Your task to perform on an android device: Go to notification settings Image 0: 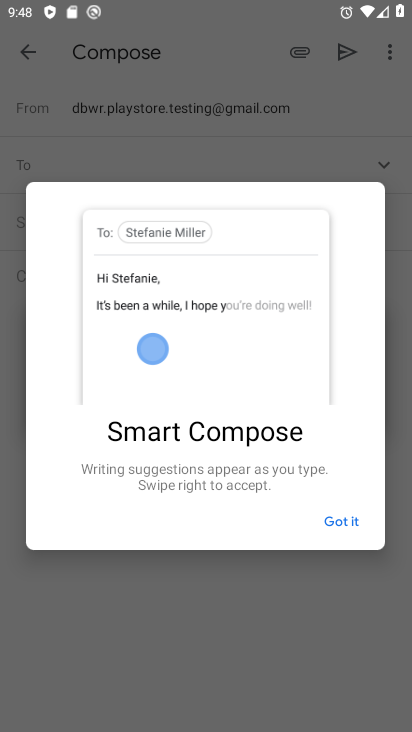
Step 0: press home button
Your task to perform on an android device: Go to notification settings Image 1: 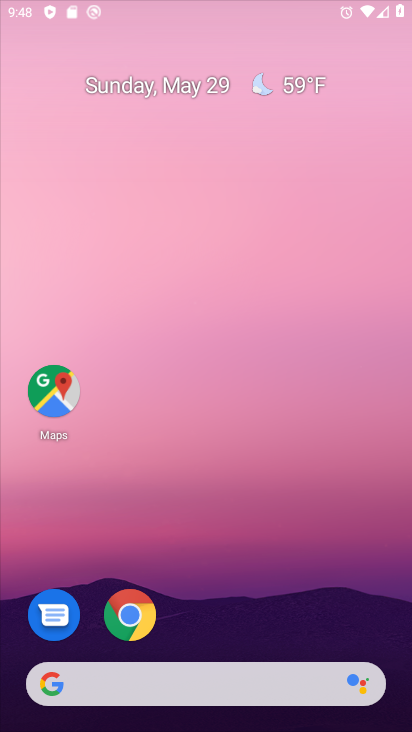
Step 1: drag from (274, 578) to (312, 76)
Your task to perform on an android device: Go to notification settings Image 2: 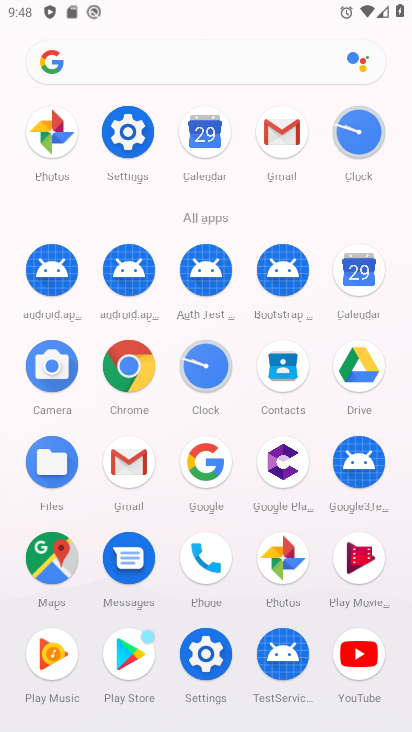
Step 2: click (131, 125)
Your task to perform on an android device: Go to notification settings Image 3: 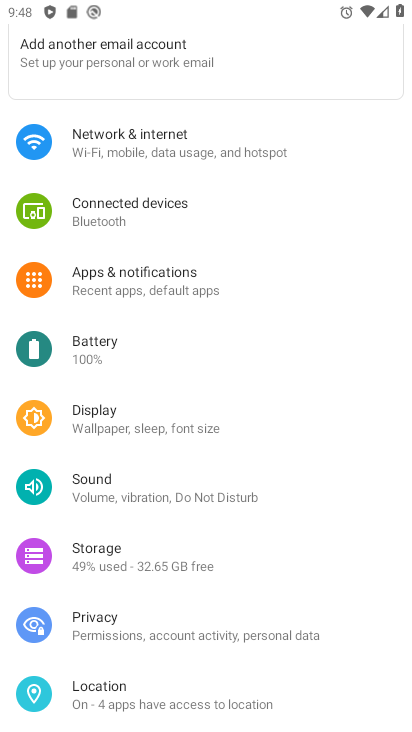
Step 3: drag from (177, 149) to (203, 270)
Your task to perform on an android device: Go to notification settings Image 4: 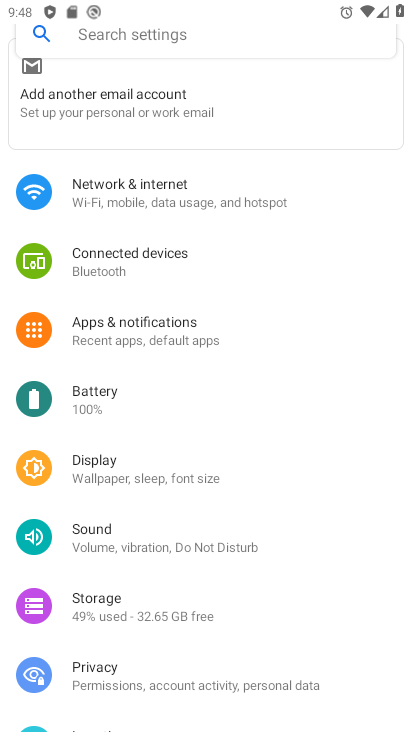
Step 4: click (185, 339)
Your task to perform on an android device: Go to notification settings Image 5: 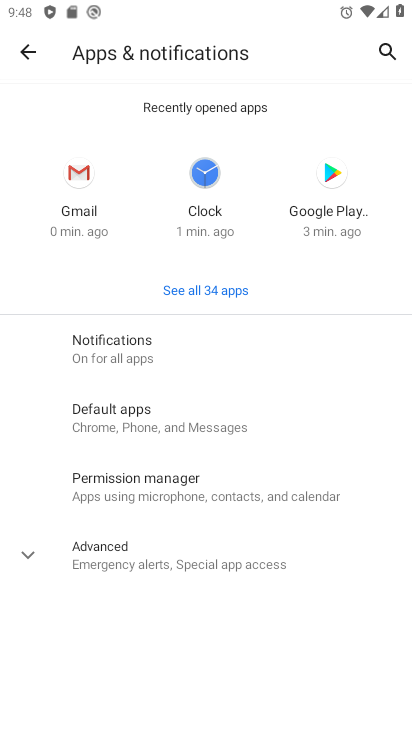
Step 5: click (162, 358)
Your task to perform on an android device: Go to notification settings Image 6: 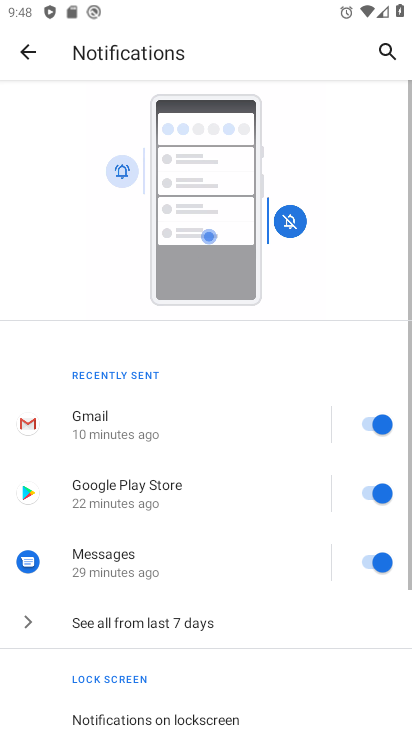
Step 6: task complete